Your task to perform on an android device: Go to Google Image 0: 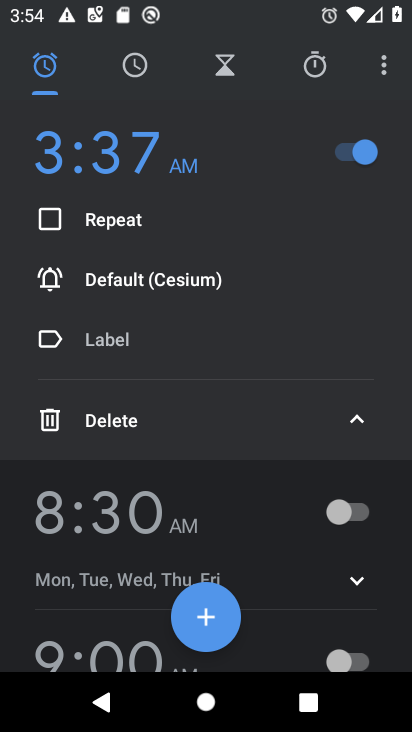
Step 0: press home button
Your task to perform on an android device: Go to Google Image 1: 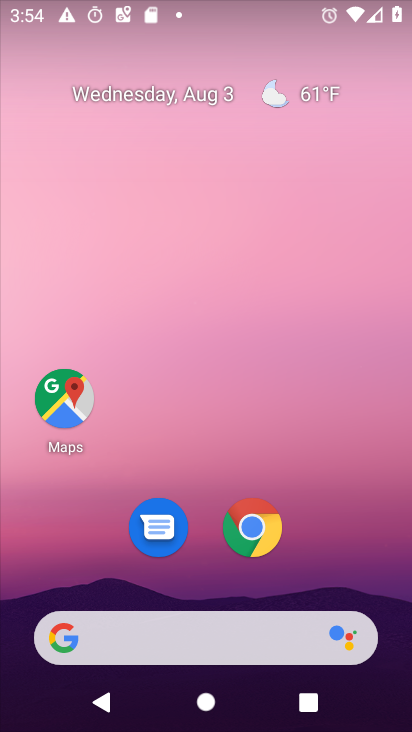
Step 1: drag from (323, 466) to (327, 27)
Your task to perform on an android device: Go to Google Image 2: 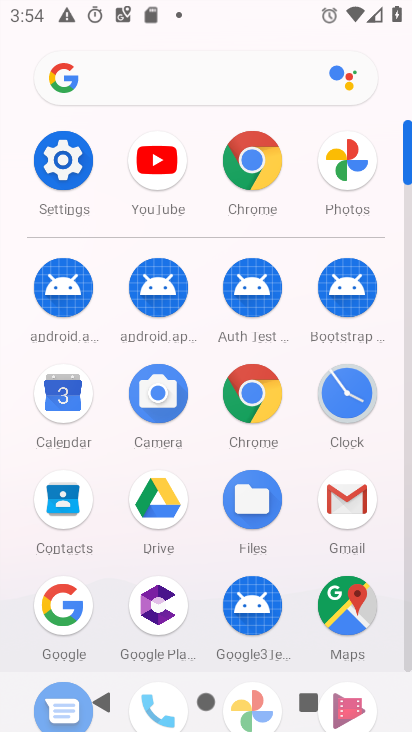
Step 2: click (75, 608)
Your task to perform on an android device: Go to Google Image 3: 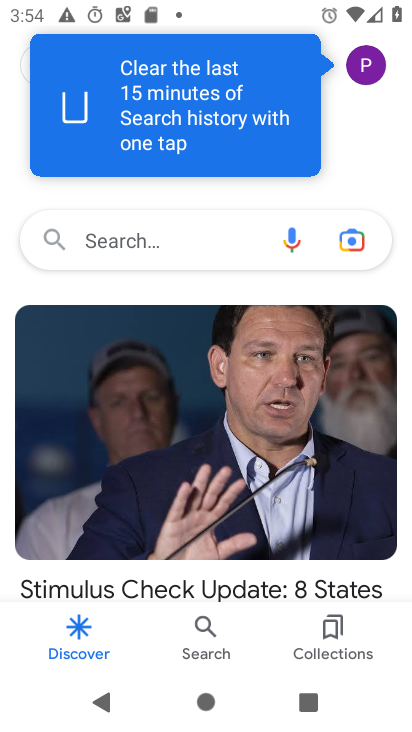
Step 3: task complete